Your task to perform on an android device: Open Chrome and go to the settings page Image 0: 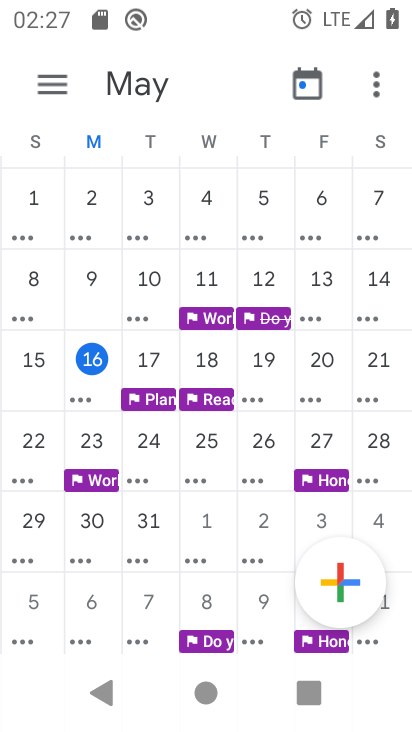
Step 0: press home button
Your task to perform on an android device: Open Chrome and go to the settings page Image 1: 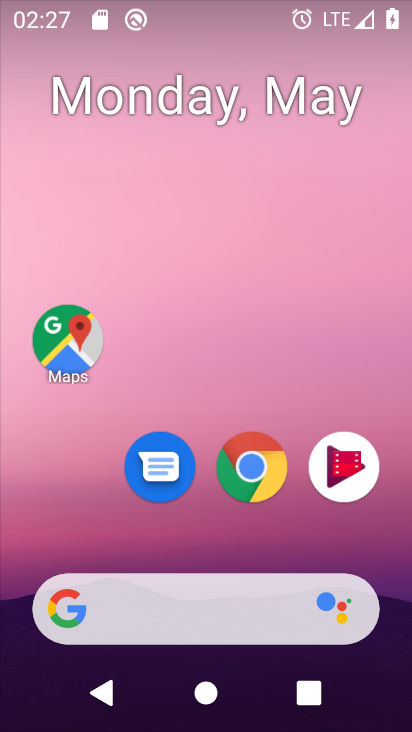
Step 1: drag from (270, 546) to (335, 170)
Your task to perform on an android device: Open Chrome and go to the settings page Image 2: 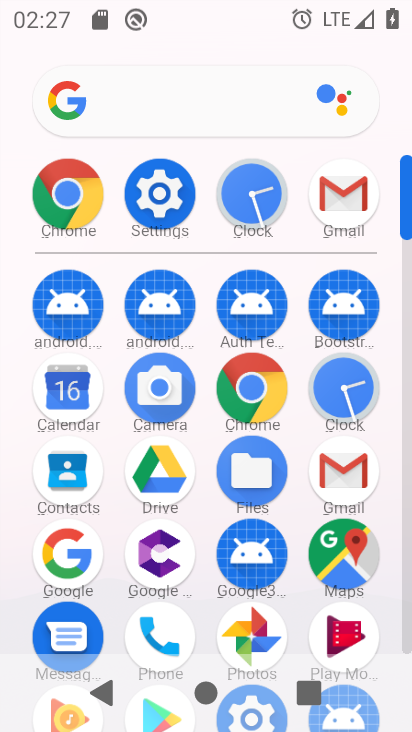
Step 2: click (80, 183)
Your task to perform on an android device: Open Chrome and go to the settings page Image 3: 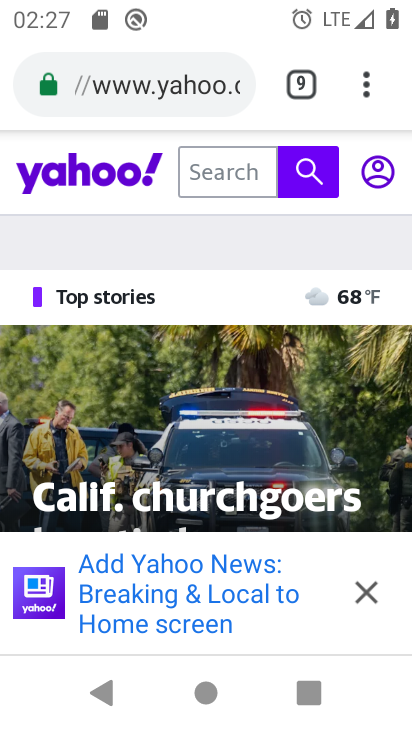
Step 3: click (356, 80)
Your task to perform on an android device: Open Chrome and go to the settings page Image 4: 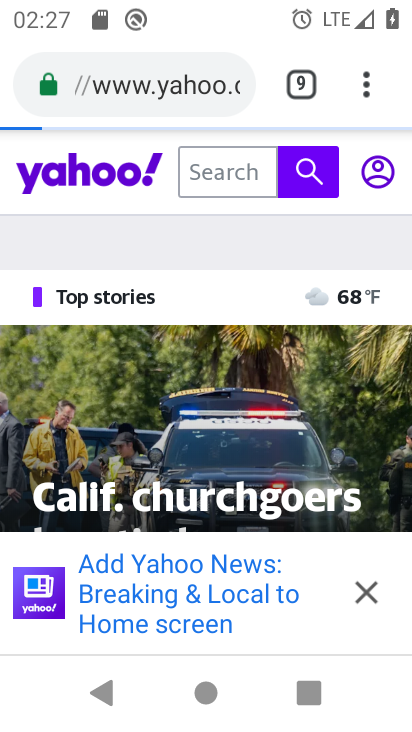
Step 4: click (357, 81)
Your task to perform on an android device: Open Chrome and go to the settings page Image 5: 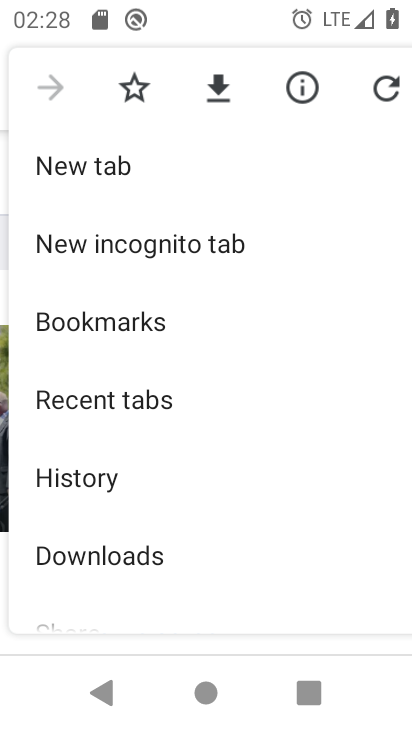
Step 5: drag from (182, 537) to (253, 274)
Your task to perform on an android device: Open Chrome and go to the settings page Image 6: 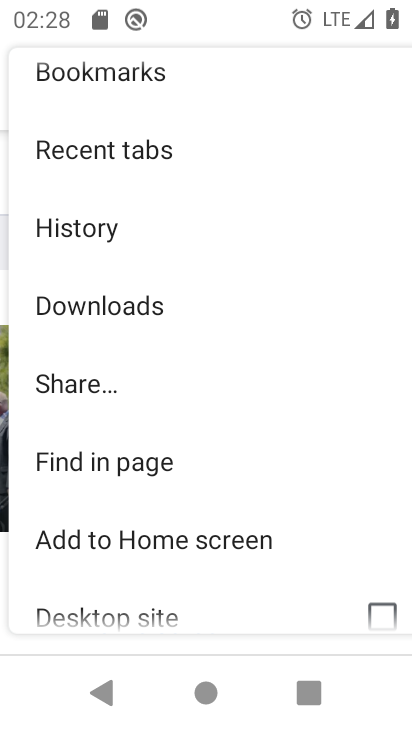
Step 6: drag from (136, 516) to (257, 190)
Your task to perform on an android device: Open Chrome and go to the settings page Image 7: 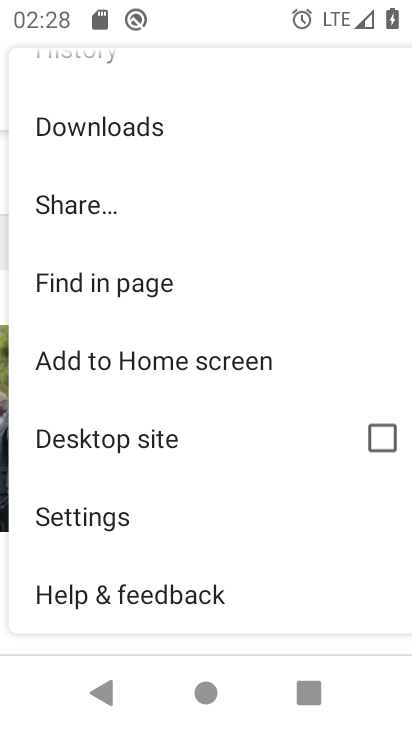
Step 7: click (111, 512)
Your task to perform on an android device: Open Chrome and go to the settings page Image 8: 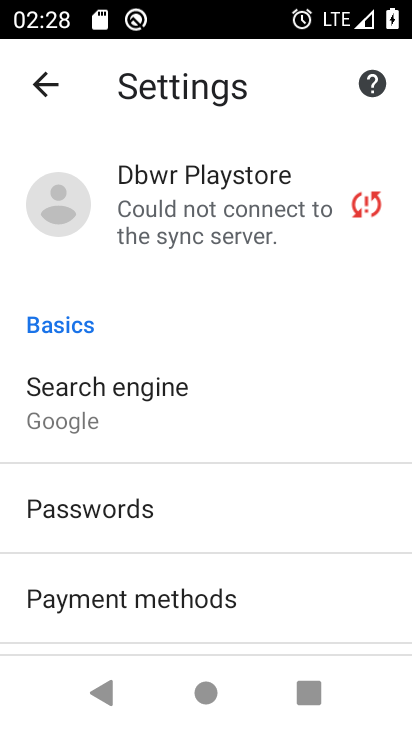
Step 8: task complete